Your task to perform on an android device: Search for Mexican restaurants on Maps Image 0: 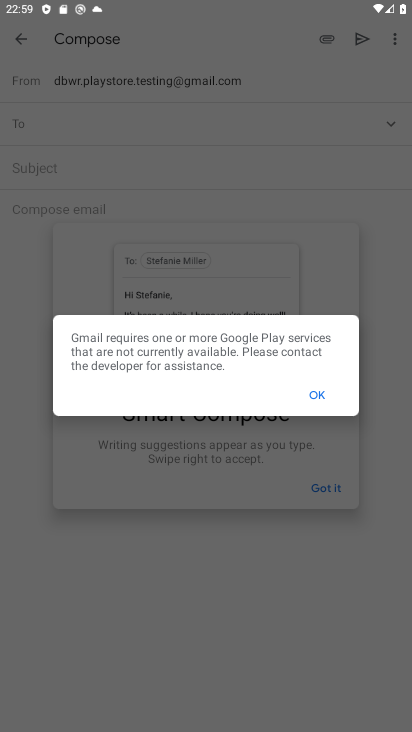
Step 0: press home button
Your task to perform on an android device: Search for Mexican restaurants on Maps Image 1: 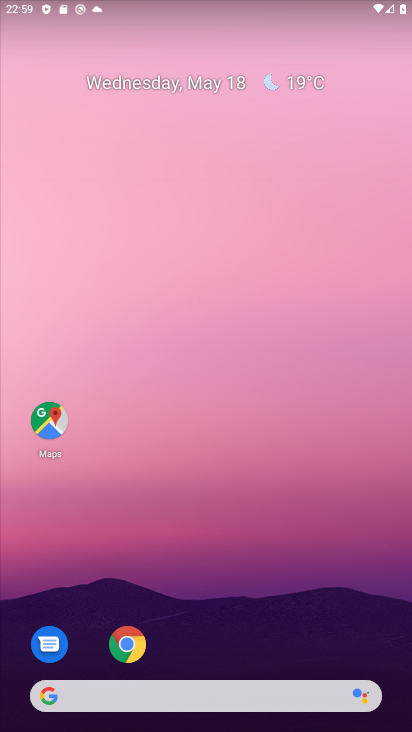
Step 1: drag from (283, 546) to (290, 163)
Your task to perform on an android device: Search for Mexican restaurants on Maps Image 2: 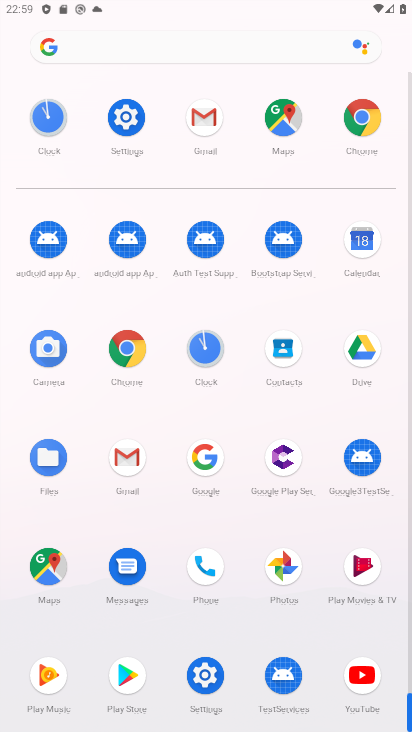
Step 2: click (278, 122)
Your task to perform on an android device: Search for Mexican restaurants on Maps Image 3: 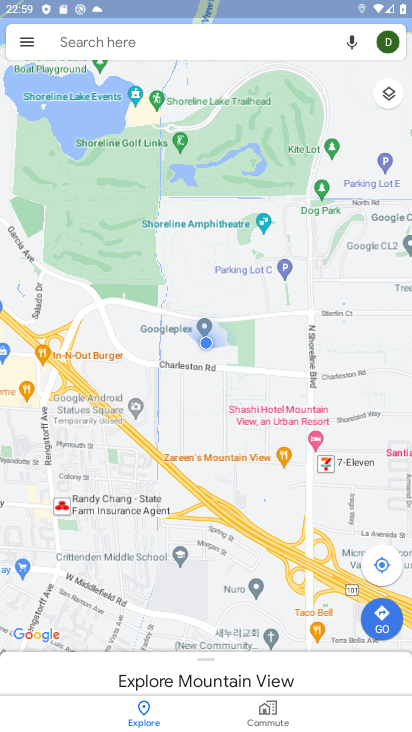
Step 3: click (176, 39)
Your task to perform on an android device: Search for Mexican restaurants on Maps Image 4: 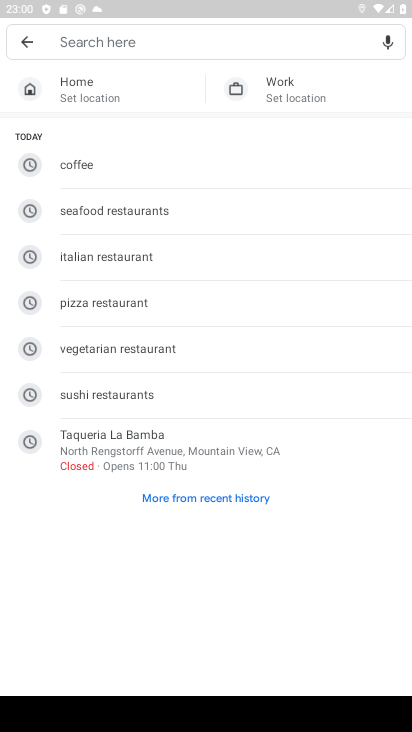
Step 4: type "mexican restaurants"
Your task to perform on an android device: Search for Mexican restaurants on Maps Image 5: 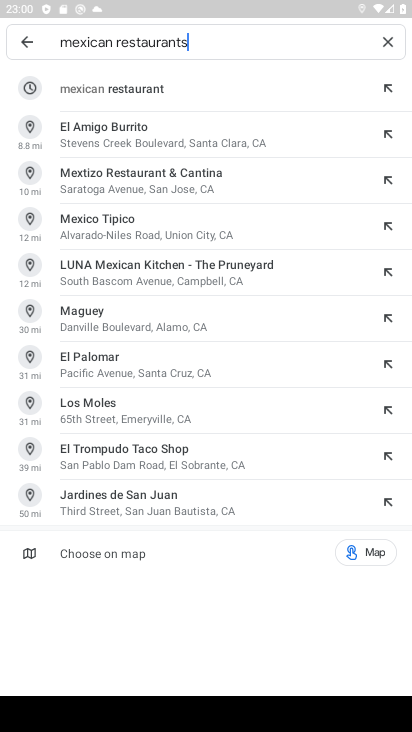
Step 5: press enter
Your task to perform on an android device: Search for Mexican restaurants on Maps Image 6: 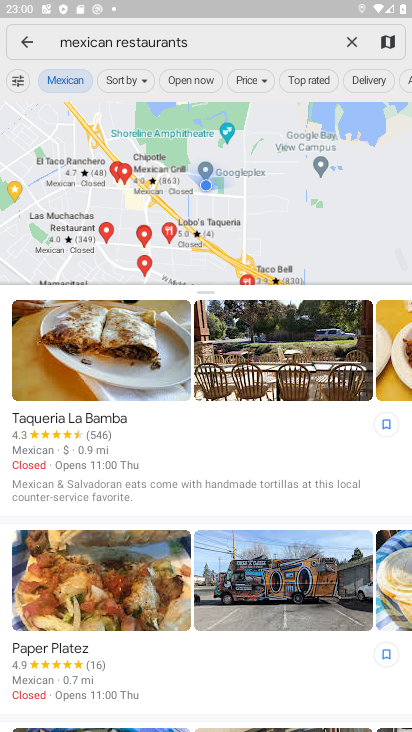
Step 6: task complete